Your task to perform on an android device: Open privacy settings Image 0: 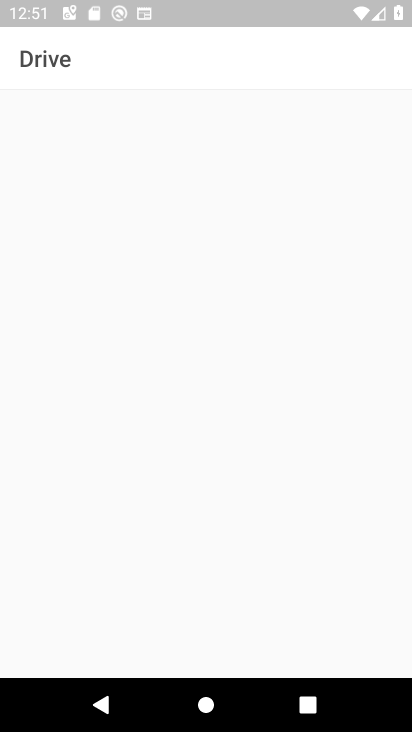
Step 0: press home button
Your task to perform on an android device: Open privacy settings Image 1: 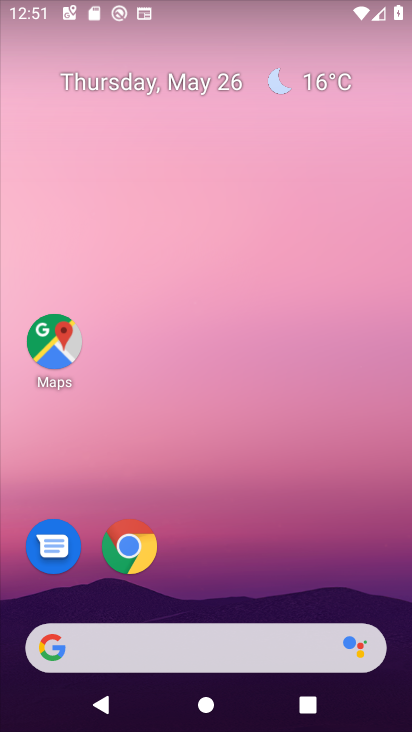
Step 1: drag from (219, 579) to (273, 270)
Your task to perform on an android device: Open privacy settings Image 2: 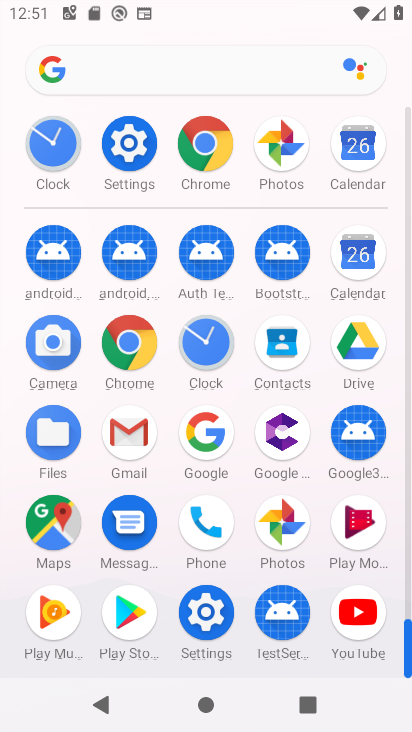
Step 2: click (128, 144)
Your task to perform on an android device: Open privacy settings Image 3: 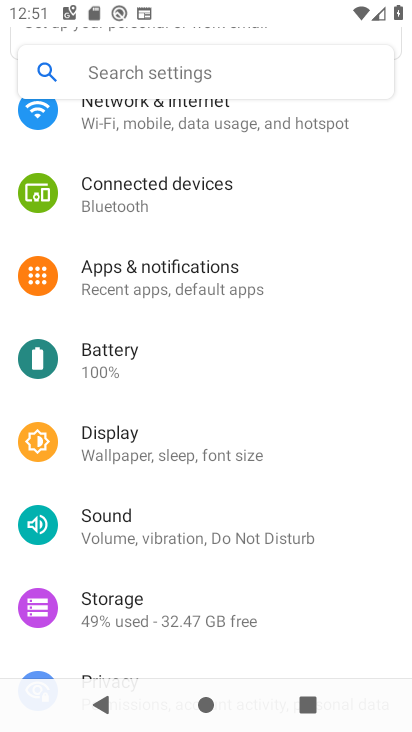
Step 3: drag from (171, 565) to (215, 256)
Your task to perform on an android device: Open privacy settings Image 4: 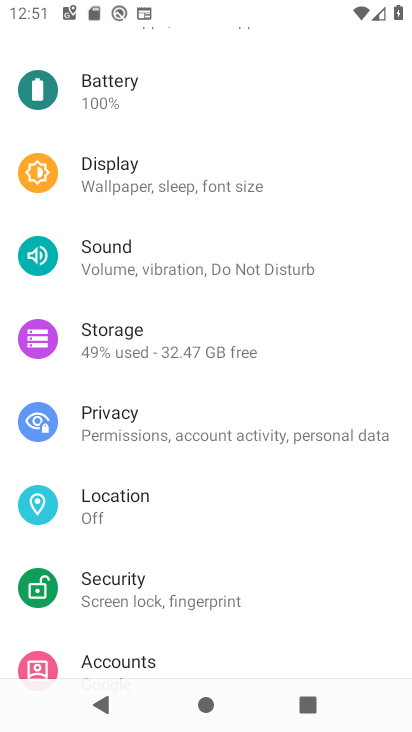
Step 4: click (156, 425)
Your task to perform on an android device: Open privacy settings Image 5: 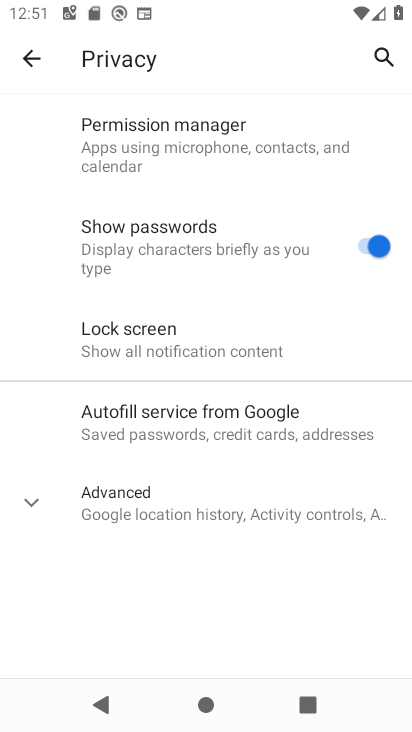
Step 5: task complete